Your task to perform on an android device: Go to CNN.com Image 0: 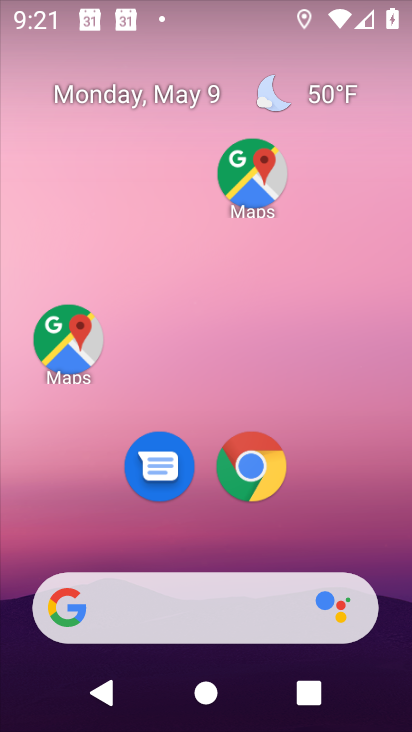
Step 0: click (259, 477)
Your task to perform on an android device: Go to CNN.com Image 1: 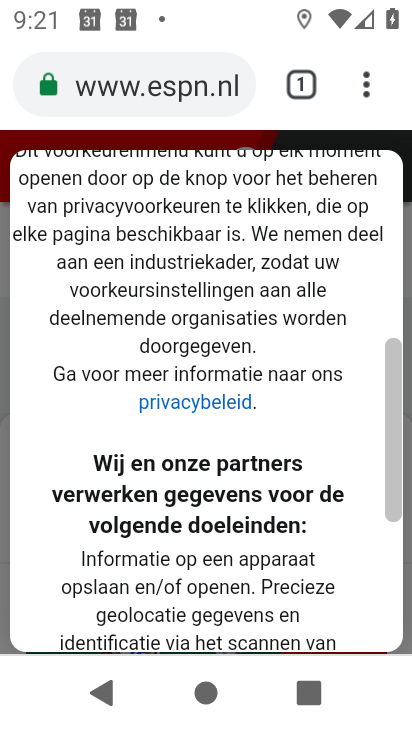
Step 1: click (156, 95)
Your task to perform on an android device: Go to CNN.com Image 2: 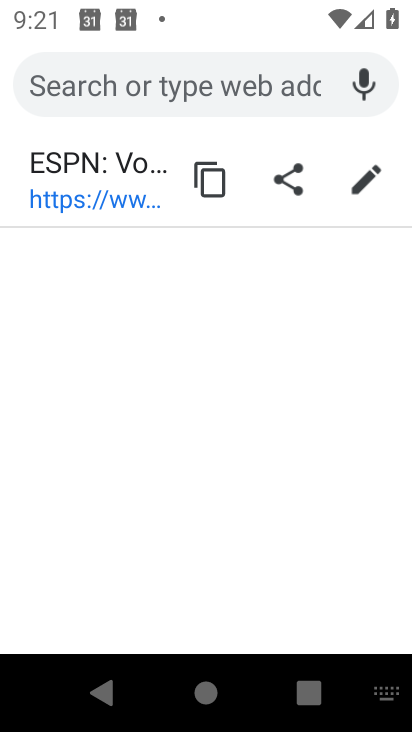
Step 2: type "CNN.com"
Your task to perform on an android device: Go to CNN.com Image 3: 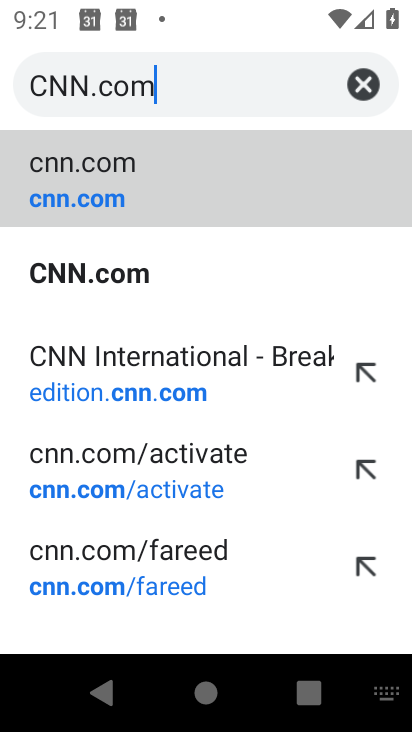
Step 3: click (112, 191)
Your task to perform on an android device: Go to CNN.com Image 4: 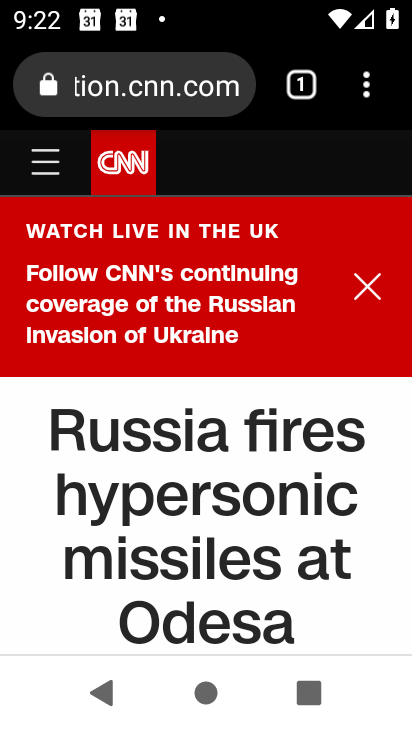
Step 4: task complete